Your task to perform on an android device: delete the emails in spam in the gmail app Image 0: 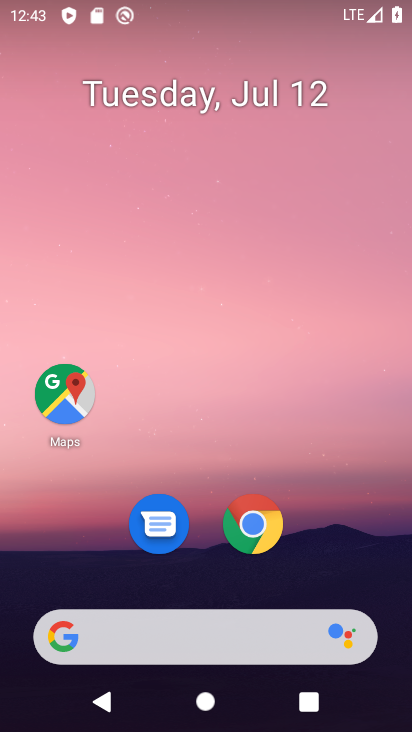
Step 0: drag from (206, 441) to (221, 0)
Your task to perform on an android device: delete the emails in spam in the gmail app Image 1: 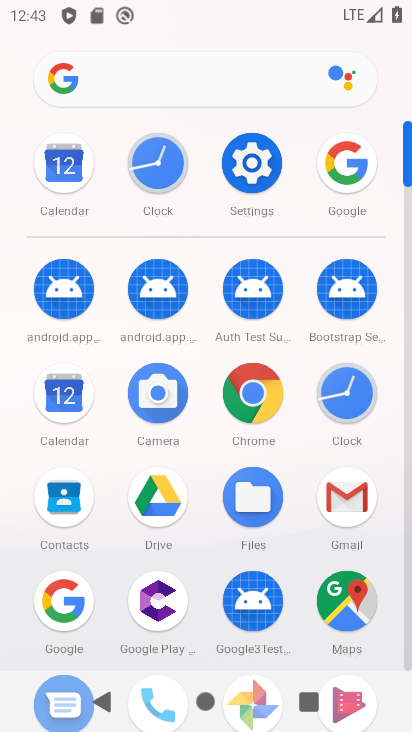
Step 1: click (345, 500)
Your task to perform on an android device: delete the emails in spam in the gmail app Image 2: 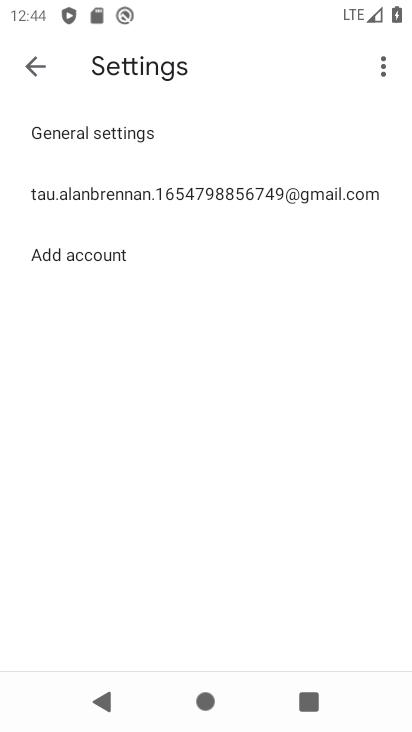
Step 2: click (42, 67)
Your task to perform on an android device: delete the emails in spam in the gmail app Image 3: 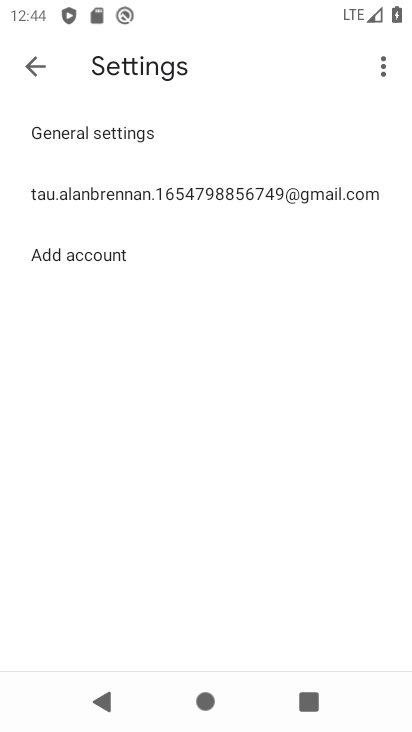
Step 3: click (37, 62)
Your task to perform on an android device: delete the emails in spam in the gmail app Image 4: 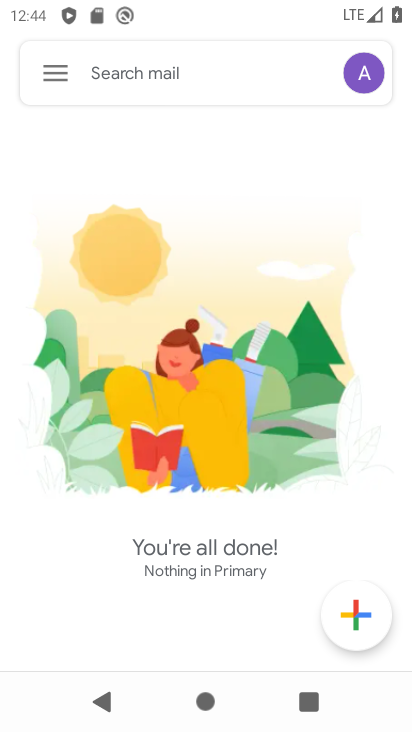
Step 4: click (54, 72)
Your task to perform on an android device: delete the emails in spam in the gmail app Image 5: 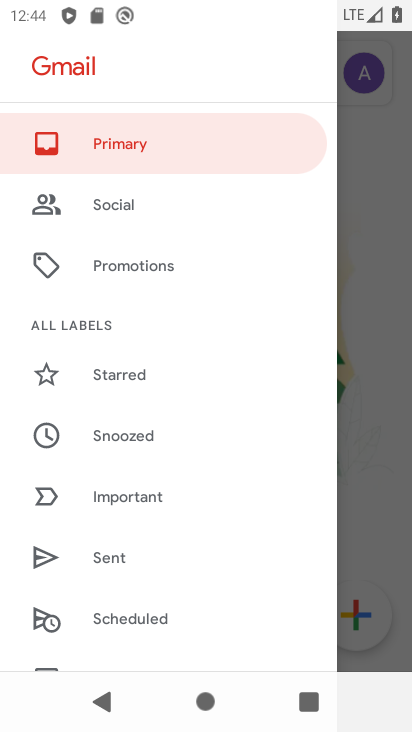
Step 5: drag from (186, 495) to (209, 181)
Your task to perform on an android device: delete the emails in spam in the gmail app Image 6: 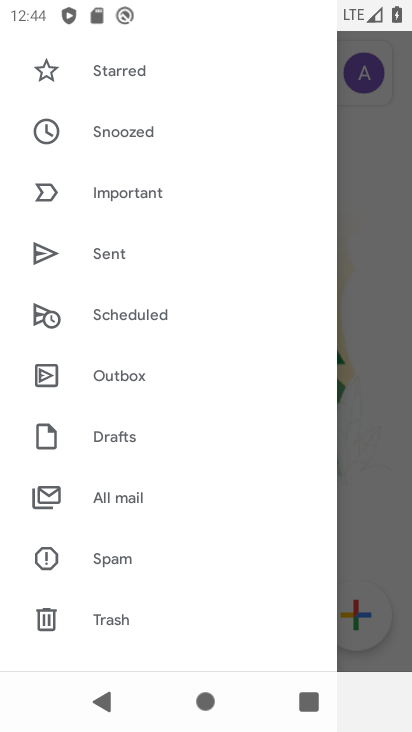
Step 6: click (126, 556)
Your task to perform on an android device: delete the emails in spam in the gmail app Image 7: 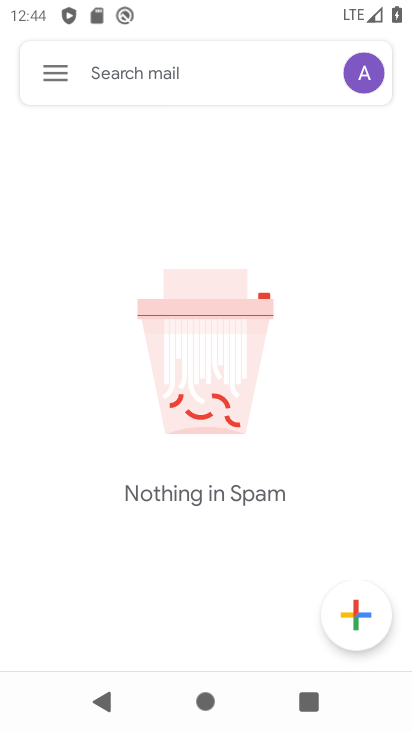
Step 7: task complete